Your task to perform on an android device: Turn on the flashlight Image 0: 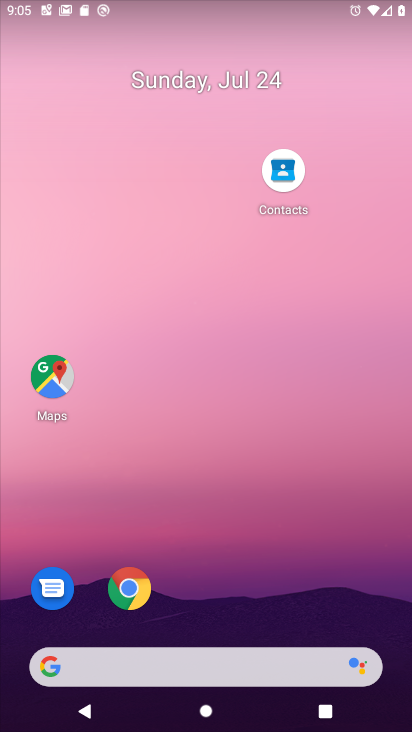
Step 0: drag from (206, 621) to (245, 23)
Your task to perform on an android device: Turn on the flashlight Image 1: 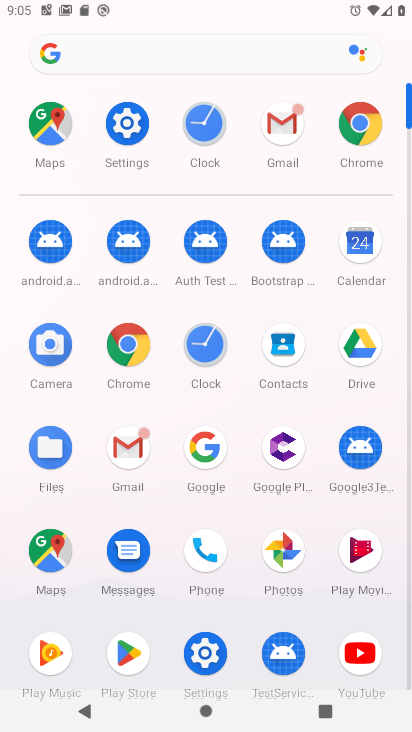
Step 1: click (123, 118)
Your task to perform on an android device: Turn on the flashlight Image 2: 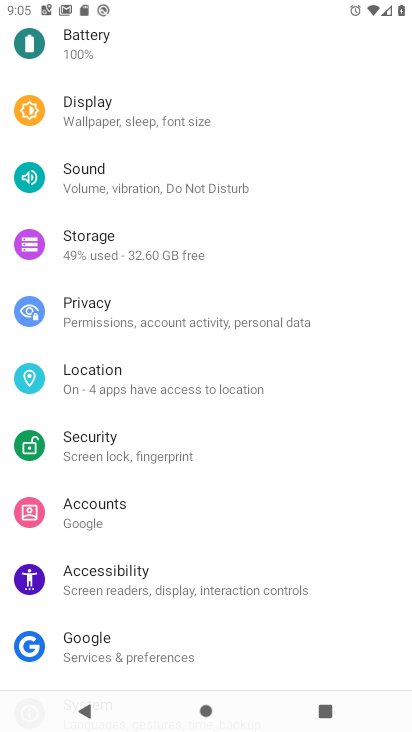
Step 2: drag from (177, 108) to (160, 679)
Your task to perform on an android device: Turn on the flashlight Image 3: 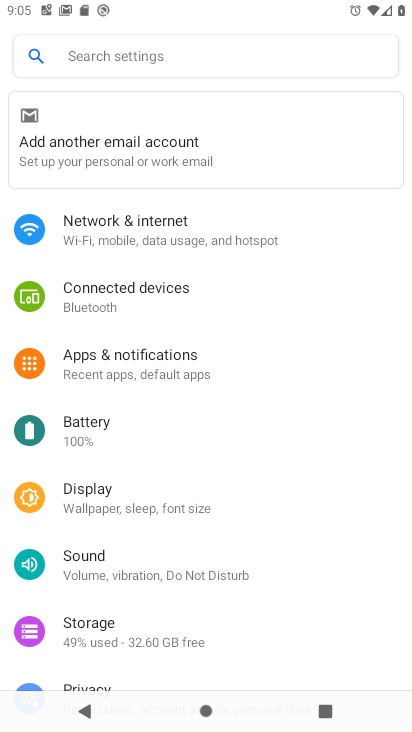
Step 3: click (137, 48)
Your task to perform on an android device: Turn on the flashlight Image 4: 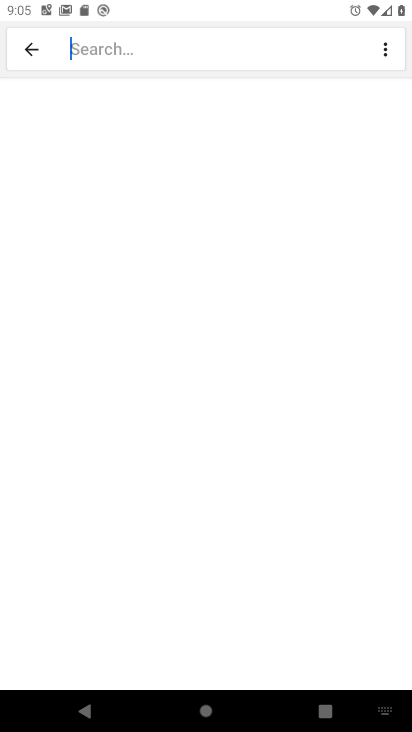
Step 4: type "flashlight"
Your task to perform on an android device: Turn on the flashlight Image 5: 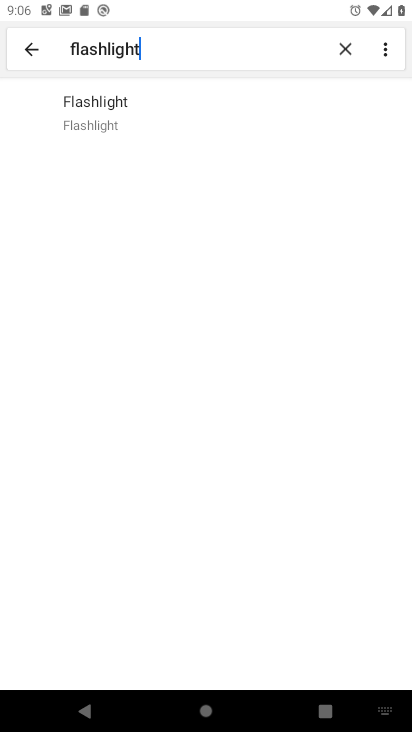
Step 5: click (131, 112)
Your task to perform on an android device: Turn on the flashlight Image 6: 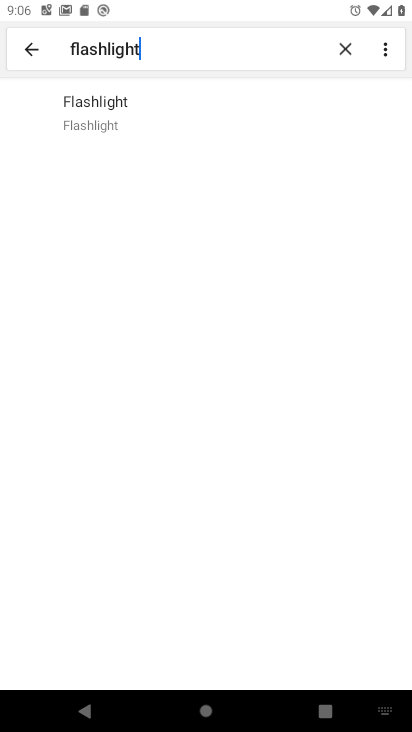
Step 6: click (131, 112)
Your task to perform on an android device: Turn on the flashlight Image 7: 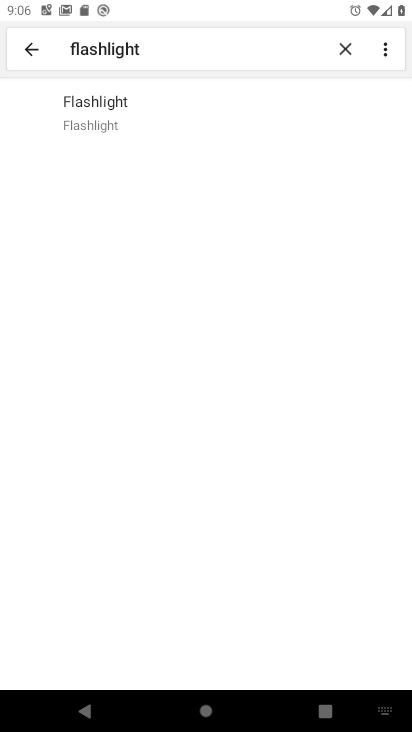
Step 7: task complete